Your task to perform on an android device: turn on airplane mode Image 0: 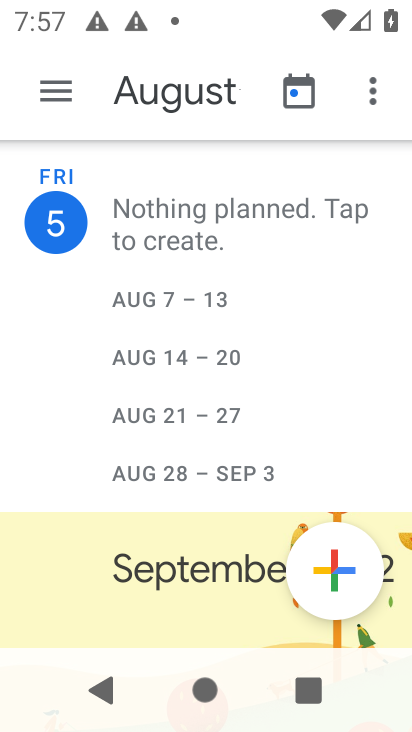
Step 0: press home button
Your task to perform on an android device: turn on airplane mode Image 1: 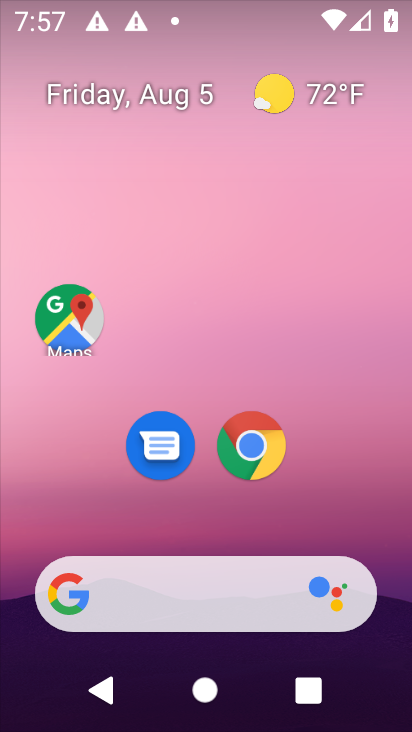
Step 1: drag from (228, 521) to (214, 51)
Your task to perform on an android device: turn on airplane mode Image 2: 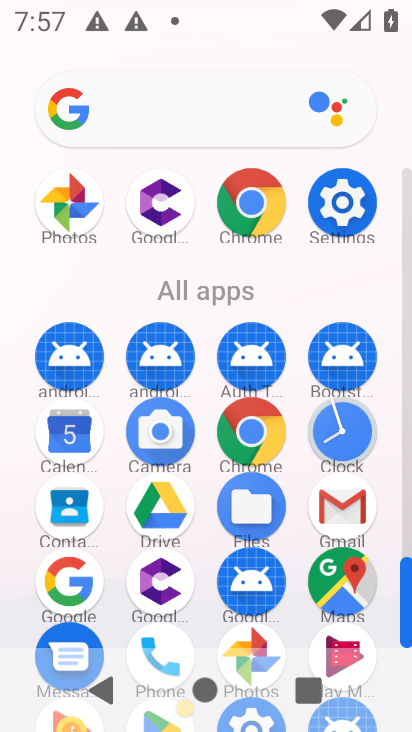
Step 2: click (327, 190)
Your task to perform on an android device: turn on airplane mode Image 3: 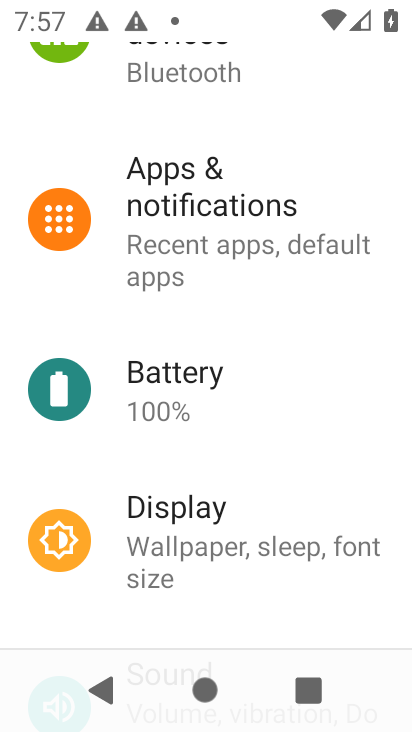
Step 3: drag from (243, 192) to (253, 511)
Your task to perform on an android device: turn on airplane mode Image 4: 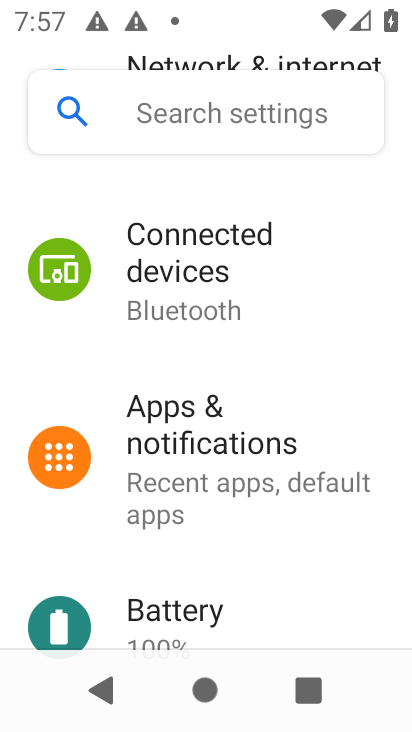
Step 4: drag from (168, 212) to (183, 385)
Your task to perform on an android device: turn on airplane mode Image 5: 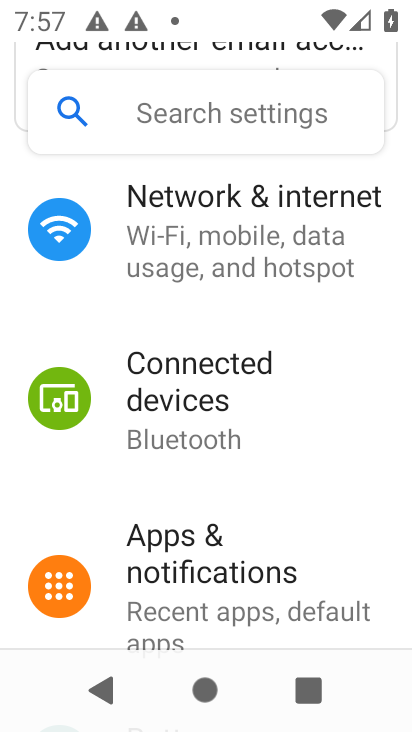
Step 5: click (191, 230)
Your task to perform on an android device: turn on airplane mode Image 6: 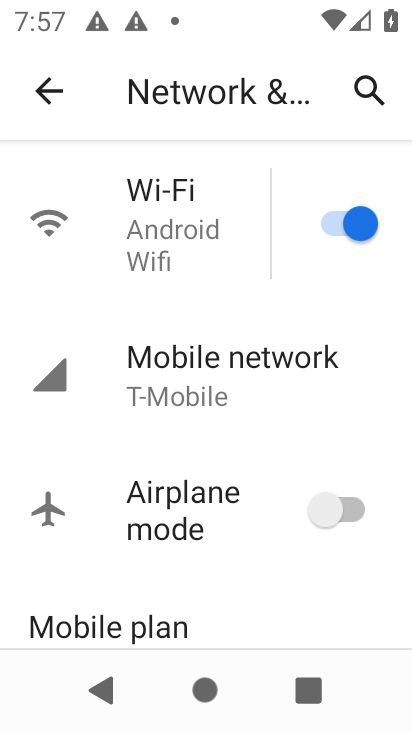
Step 6: click (342, 514)
Your task to perform on an android device: turn on airplane mode Image 7: 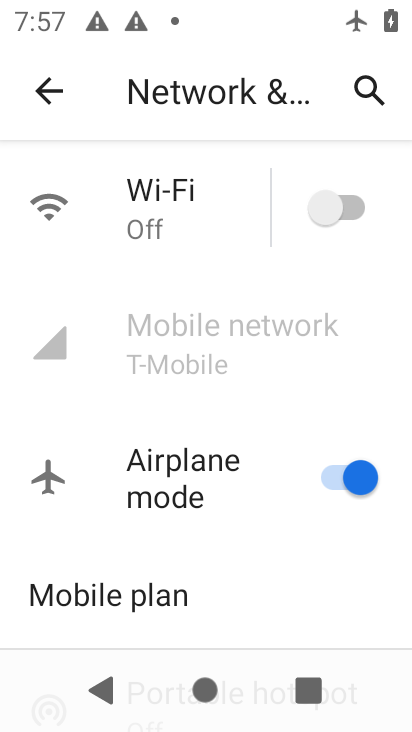
Step 7: task complete